Your task to perform on an android device: turn off location Image 0: 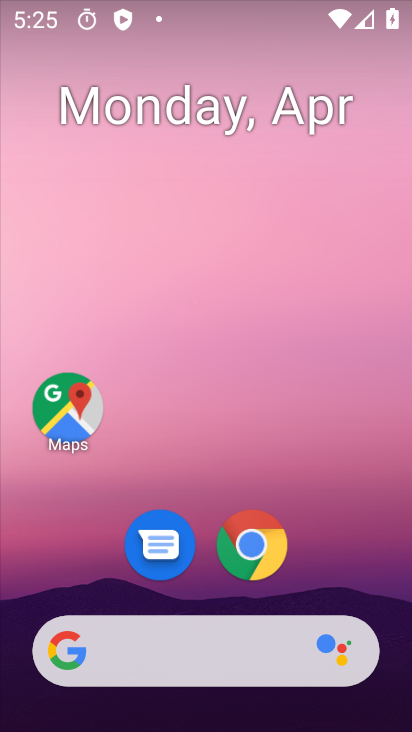
Step 0: drag from (315, 575) to (341, 111)
Your task to perform on an android device: turn off location Image 1: 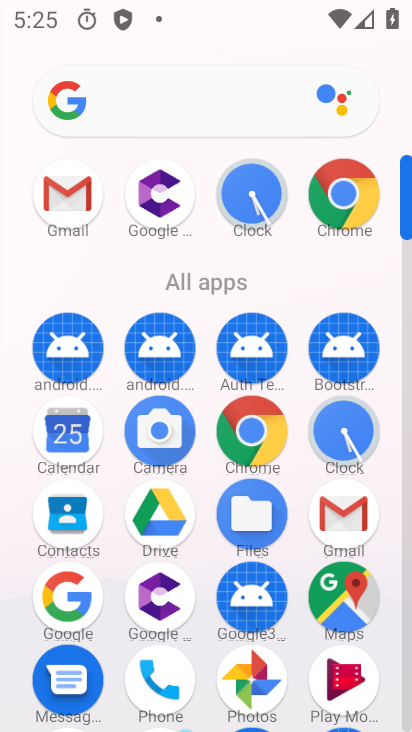
Step 1: drag from (286, 306) to (305, 8)
Your task to perform on an android device: turn off location Image 2: 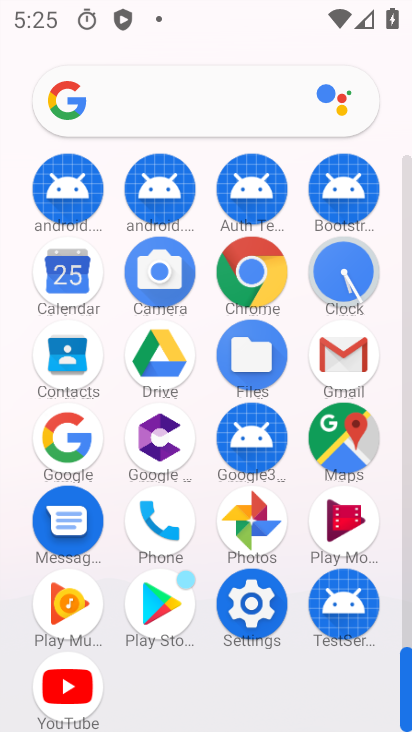
Step 2: click (247, 607)
Your task to perform on an android device: turn off location Image 3: 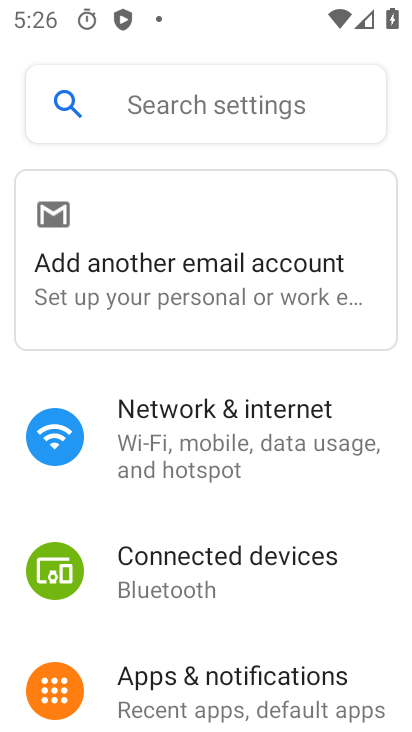
Step 3: drag from (351, 635) to (386, 235)
Your task to perform on an android device: turn off location Image 4: 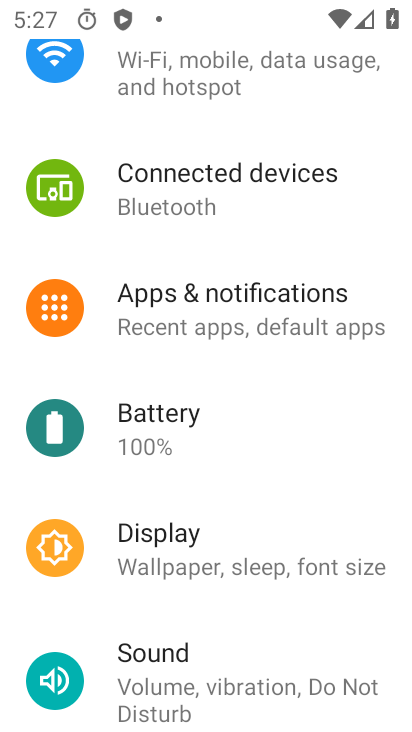
Step 4: drag from (297, 516) to (320, 285)
Your task to perform on an android device: turn off location Image 5: 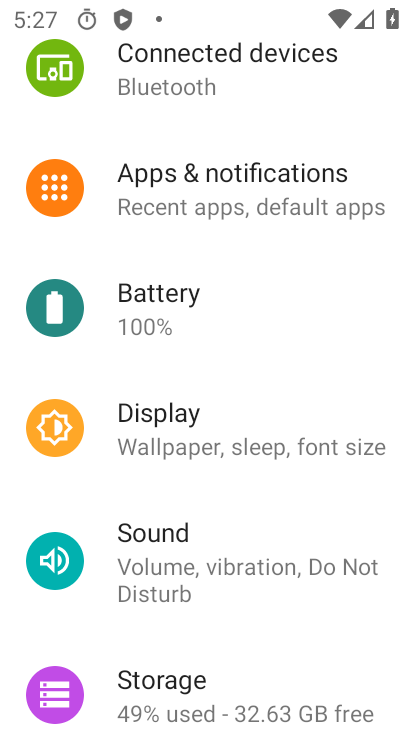
Step 5: drag from (274, 647) to (370, 187)
Your task to perform on an android device: turn off location Image 6: 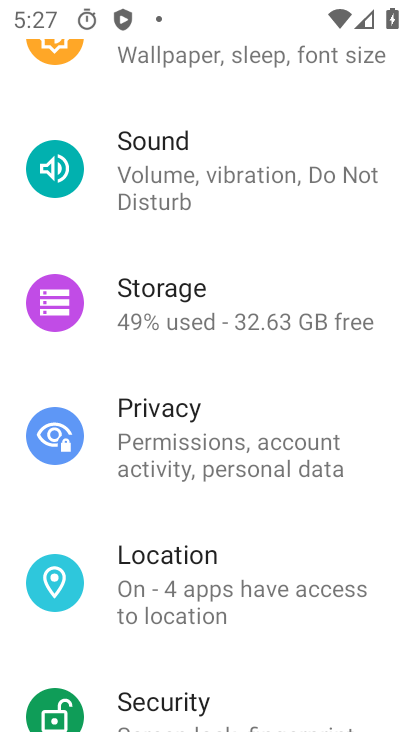
Step 6: click (178, 593)
Your task to perform on an android device: turn off location Image 7: 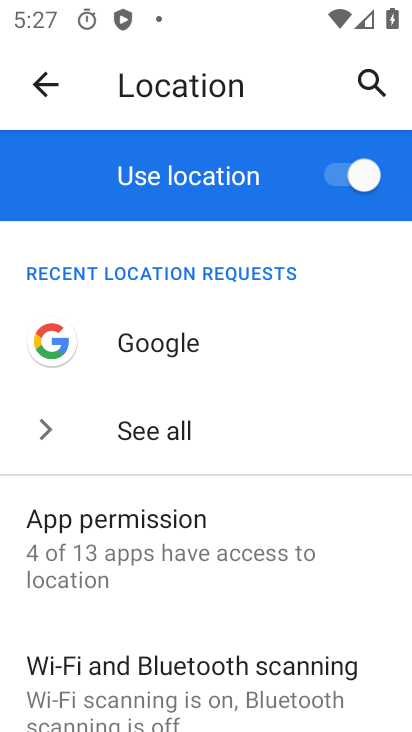
Step 7: click (339, 169)
Your task to perform on an android device: turn off location Image 8: 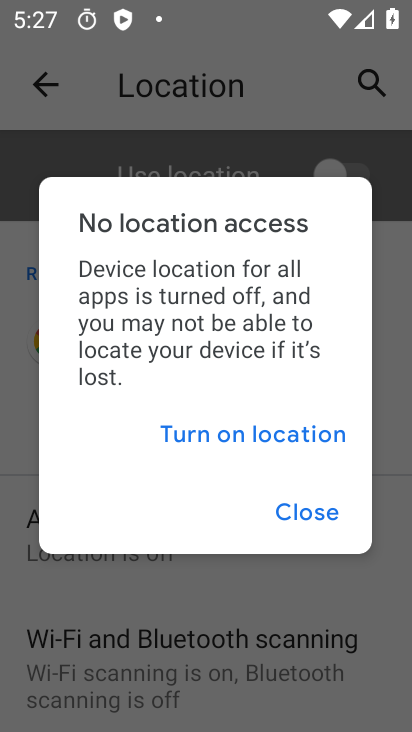
Step 8: click (317, 514)
Your task to perform on an android device: turn off location Image 9: 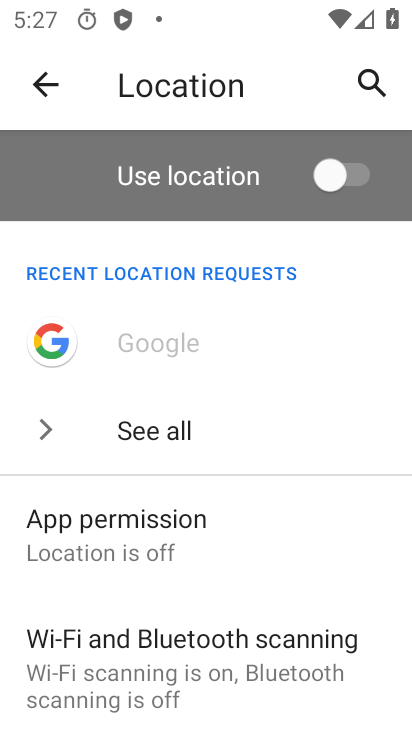
Step 9: task complete